Your task to perform on an android device: Open maps Image 0: 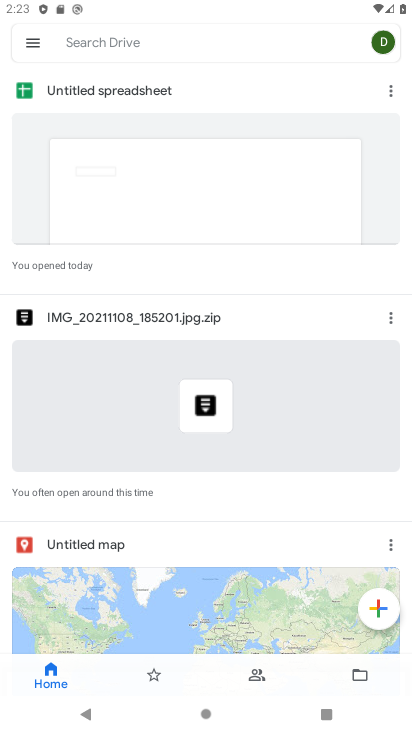
Step 0: press home button
Your task to perform on an android device: Open maps Image 1: 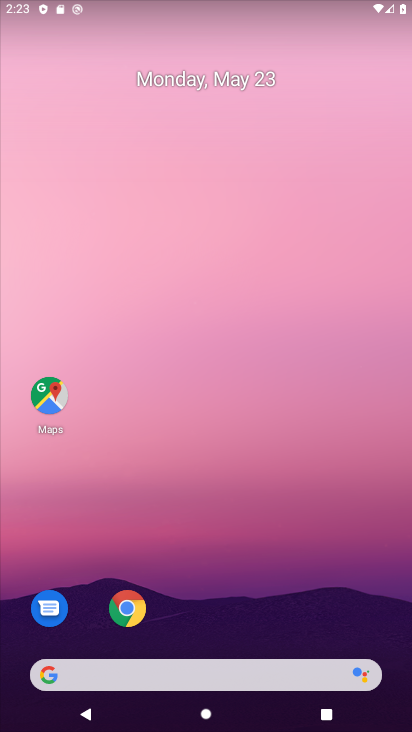
Step 1: click (50, 383)
Your task to perform on an android device: Open maps Image 2: 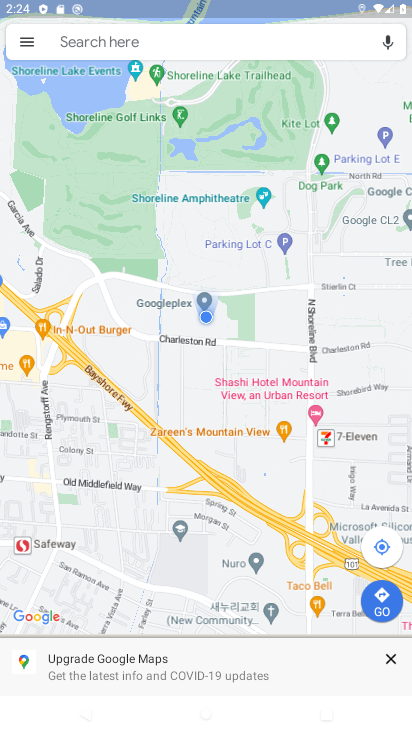
Step 2: task complete